Your task to perform on an android device: all mails in gmail Image 0: 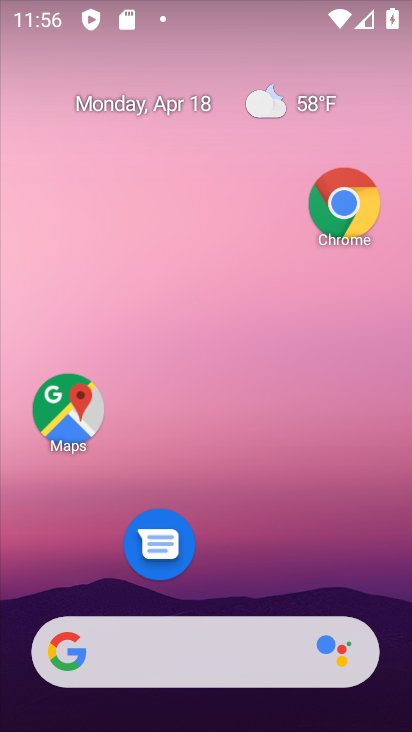
Step 0: drag from (247, 442) to (247, 85)
Your task to perform on an android device: all mails in gmail Image 1: 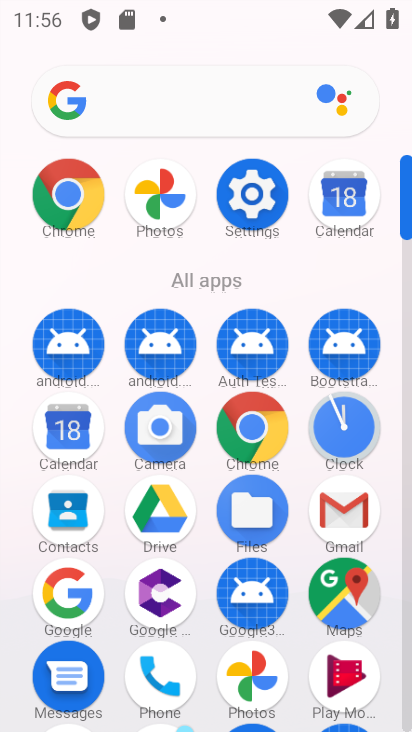
Step 1: click (341, 521)
Your task to perform on an android device: all mails in gmail Image 2: 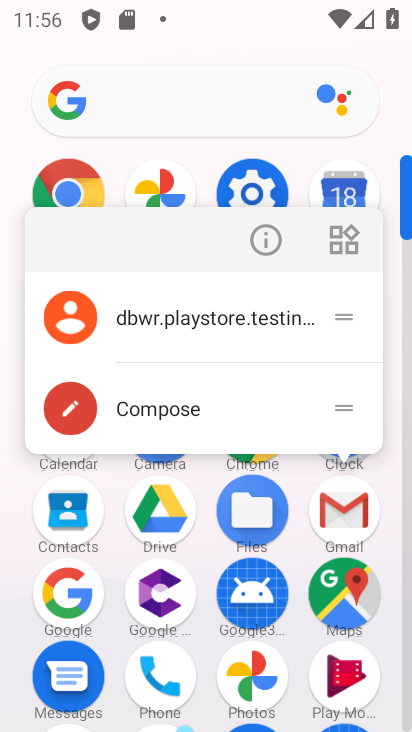
Step 2: click (345, 496)
Your task to perform on an android device: all mails in gmail Image 3: 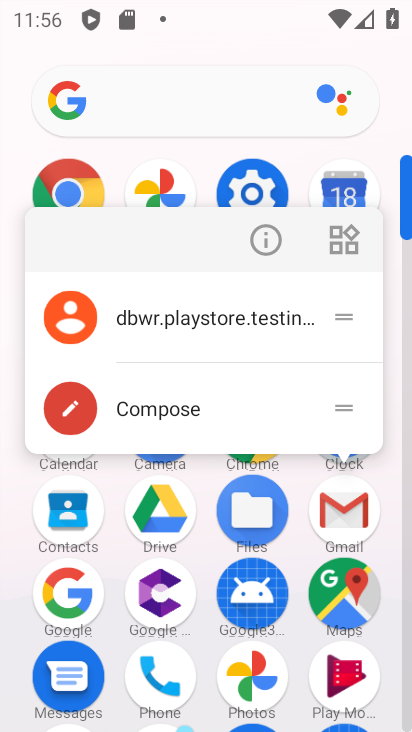
Step 3: click (347, 502)
Your task to perform on an android device: all mails in gmail Image 4: 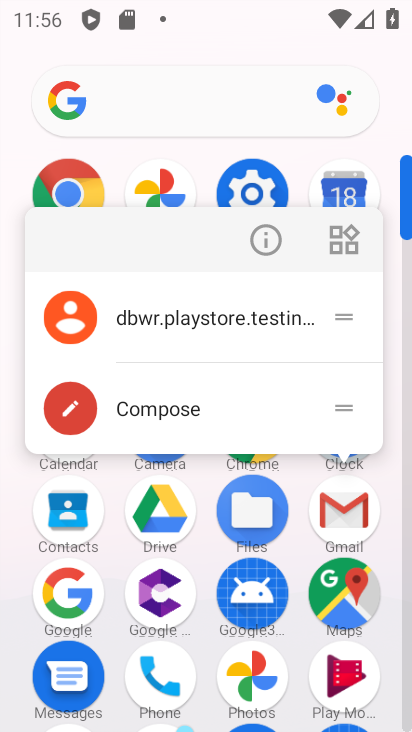
Step 4: click (347, 502)
Your task to perform on an android device: all mails in gmail Image 5: 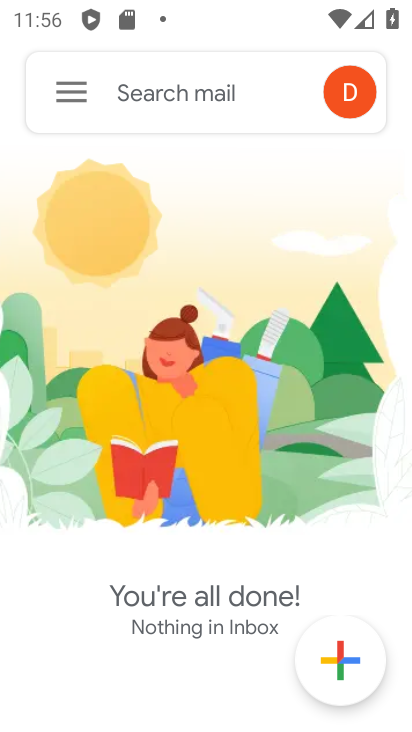
Step 5: click (68, 104)
Your task to perform on an android device: all mails in gmail Image 6: 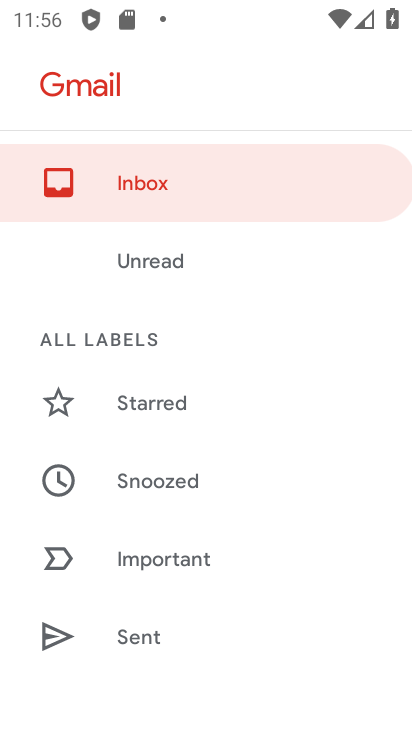
Step 6: drag from (192, 641) to (237, 144)
Your task to perform on an android device: all mails in gmail Image 7: 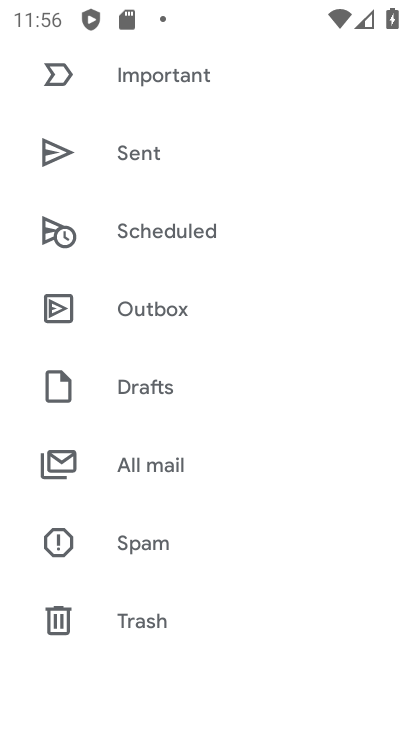
Step 7: click (143, 456)
Your task to perform on an android device: all mails in gmail Image 8: 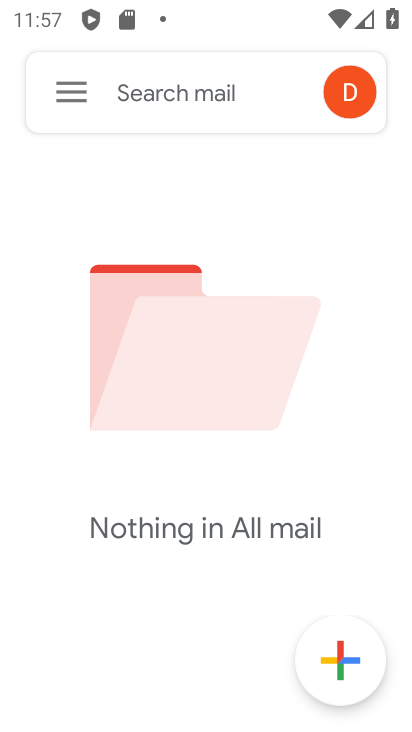
Step 8: task complete